Your task to perform on an android device: change the clock display to show seconds Image 0: 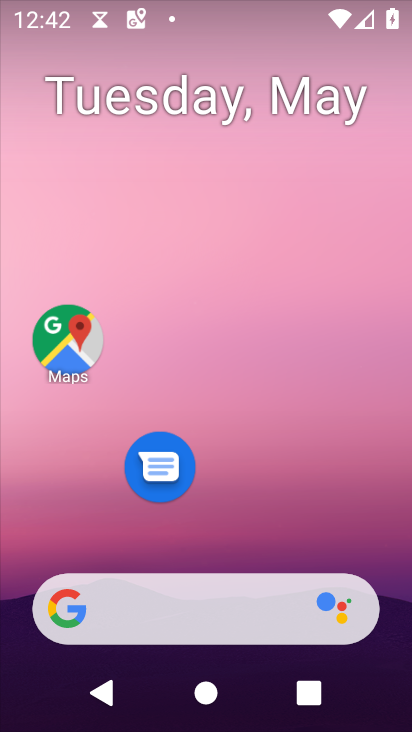
Step 0: drag from (287, 511) to (305, 28)
Your task to perform on an android device: change the clock display to show seconds Image 1: 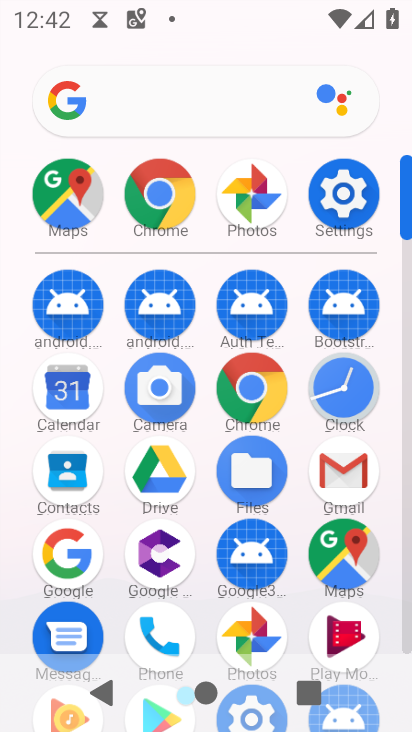
Step 1: click (350, 384)
Your task to perform on an android device: change the clock display to show seconds Image 2: 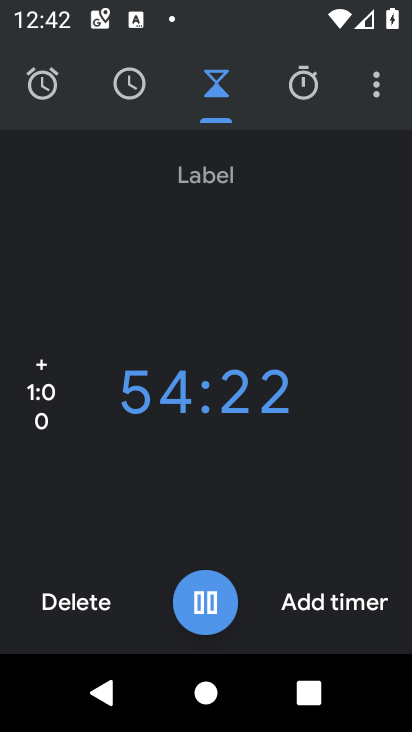
Step 2: click (387, 81)
Your task to perform on an android device: change the clock display to show seconds Image 3: 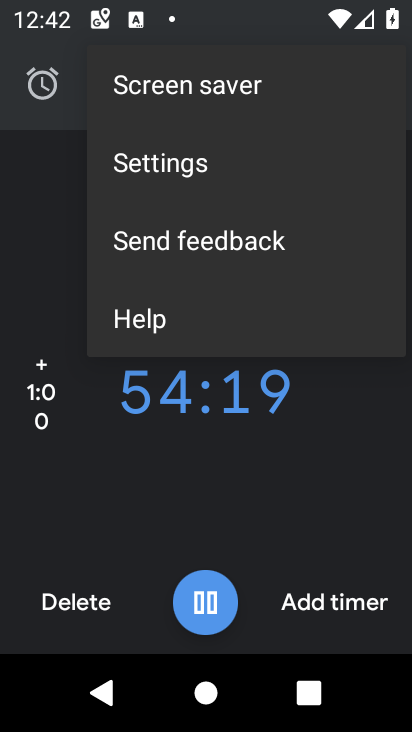
Step 3: click (187, 159)
Your task to perform on an android device: change the clock display to show seconds Image 4: 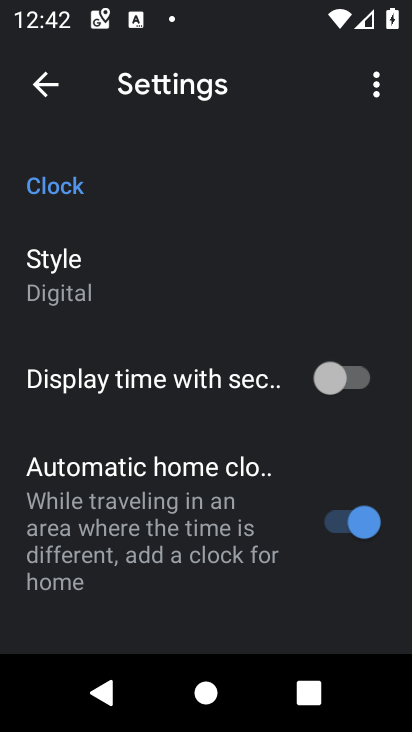
Step 4: click (361, 381)
Your task to perform on an android device: change the clock display to show seconds Image 5: 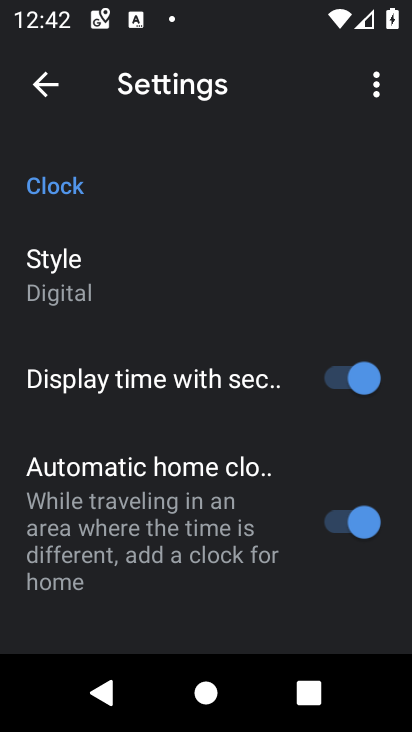
Step 5: task complete